Your task to perform on an android device: toggle notifications settings in the gmail app Image 0: 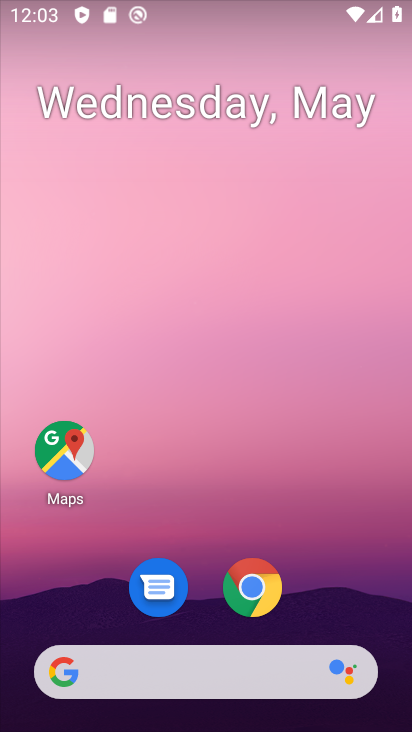
Step 0: drag from (319, 577) to (170, 55)
Your task to perform on an android device: toggle notifications settings in the gmail app Image 1: 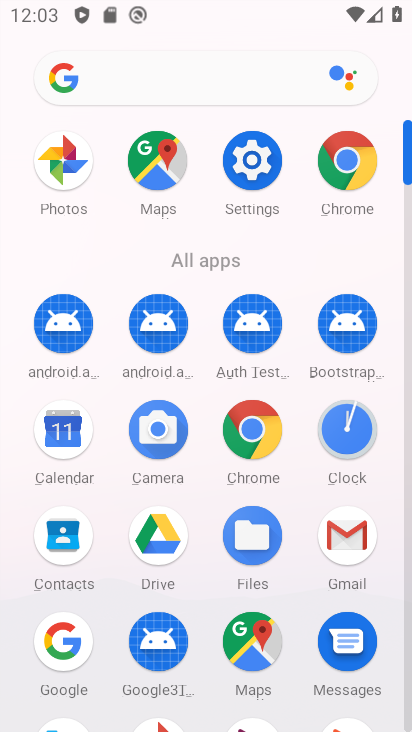
Step 1: click (334, 537)
Your task to perform on an android device: toggle notifications settings in the gmail app Image 2: 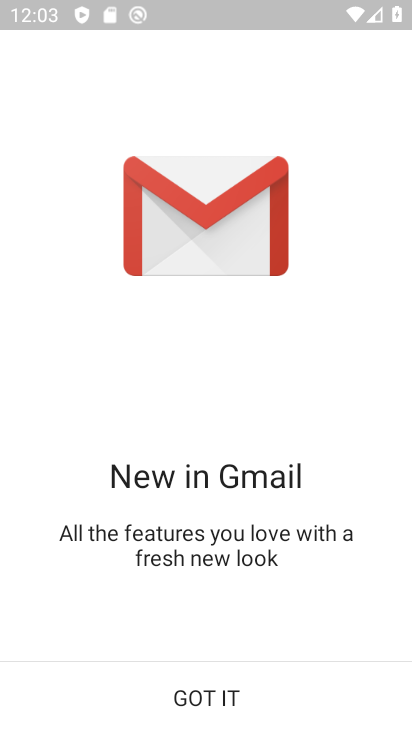
Step 2: click (235, 686)
Your task to perform on an android device: toggle notifications settings in the gmail app Image 3: 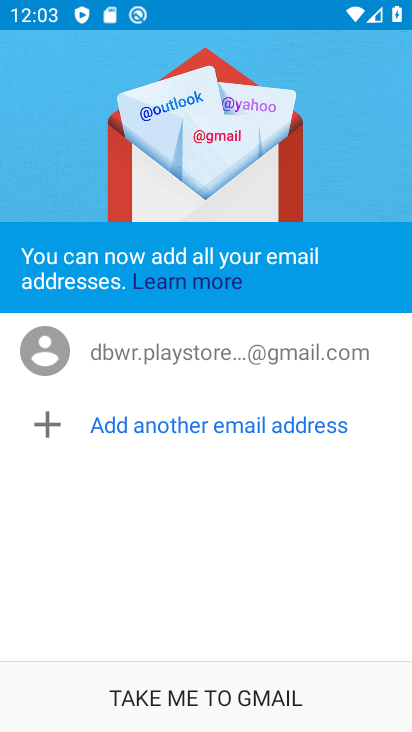
Step 3: click (235, 686)
Your task to perform on an android device: toggle notifications settings in the gmail app Image 4: 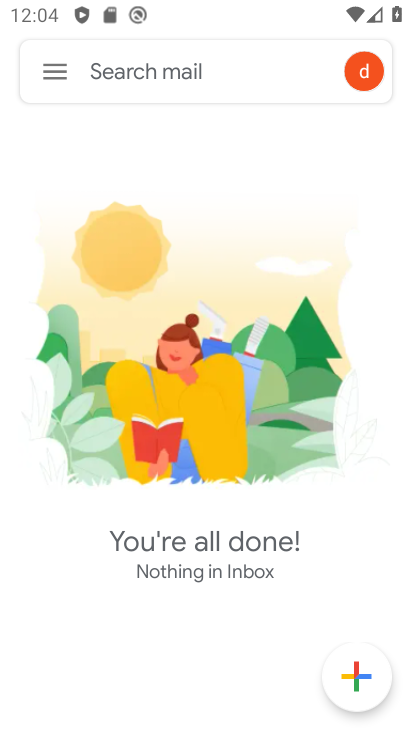
Step 4: click (62, 86)
Your task to perform on an android device: toggle notifications settings in the gmail app Image 5: 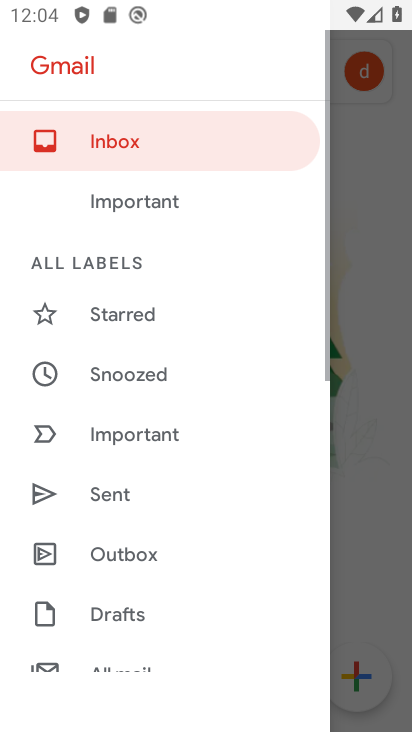
Step 5: drag from (138, 544) to (110, 128)
Your task to perform on an android device: toggle notifications settings in the gmail app Image 6: 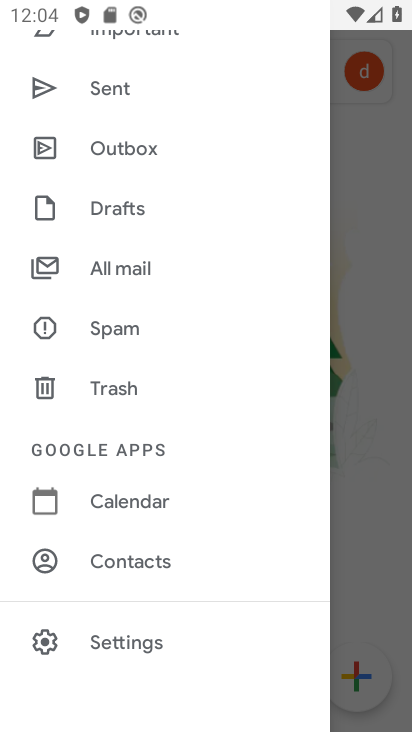
Step 6: click (136, 622)
Your task to perform on an android device: toggle notifications settings in the gmail app Image 7: 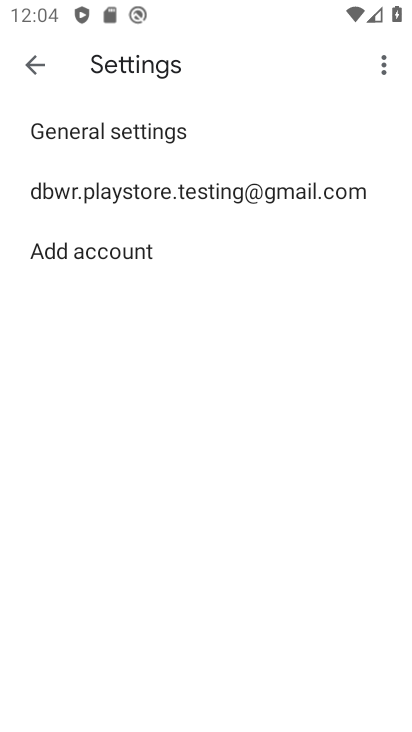
Step 7: click (155, 194)
Your task to perform on an android device: toggle notifications settings in the gmail app Image 8: 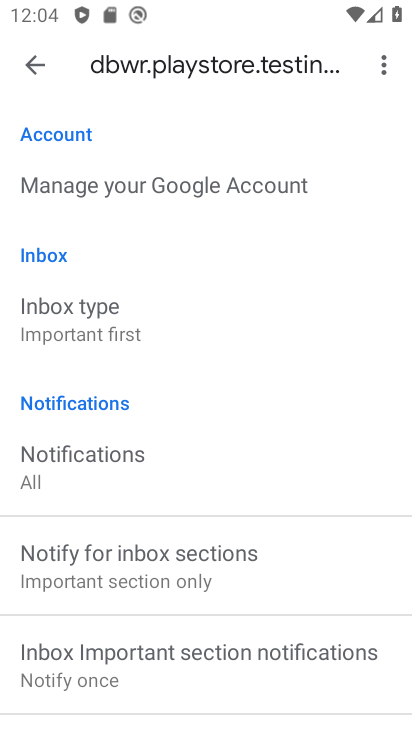
Step 8: drag from (198, 655) to (177, 550)
Your task to perform on an android device: toggle notifications settings in the gmail app Image 9: 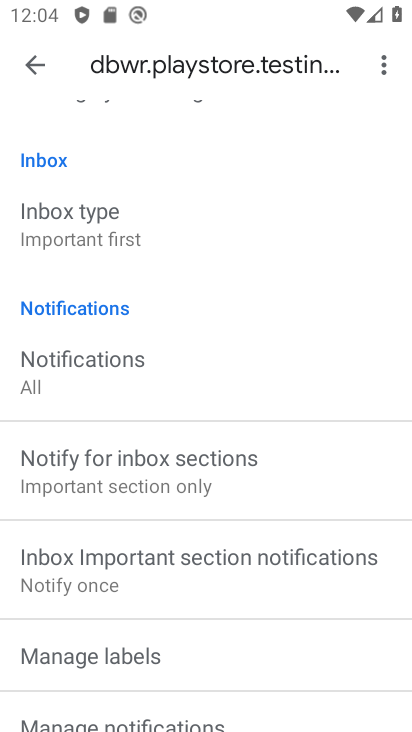
Step 9: click (101, 359)
Your task to perform on an android device: toggle notifications settings in the gmail app Image 10: 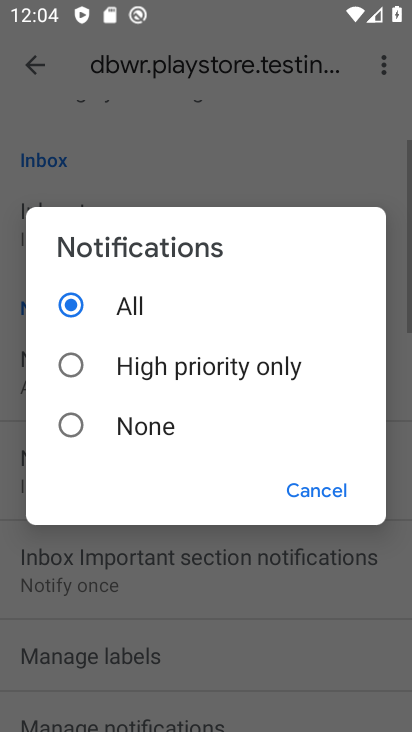
Step 10: click (141, 424)
Your task to perform on an android device: toggle notifications settings in the gmail app Image 11: 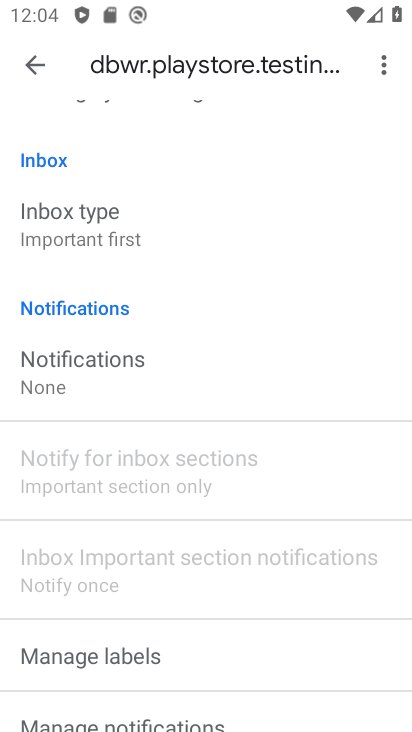
Step 11: click (183, 709)
Your task to perform on an android device: toggle notifications settings in the gmail app Image 12: 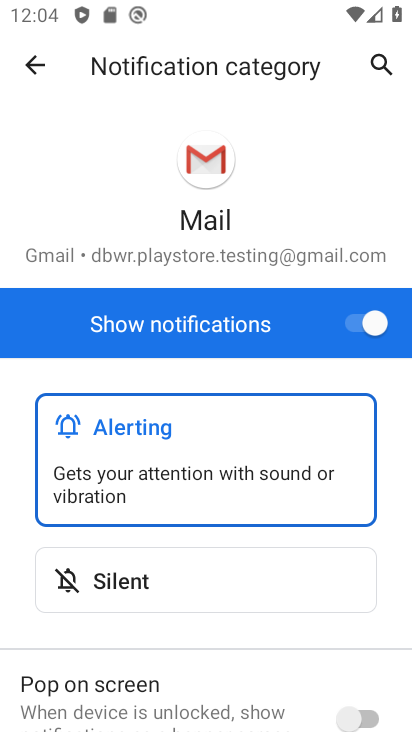
Step 12: click (301, 566)
Your task to perform on an android device: toggle notifications settings in the gmail app Image 13: 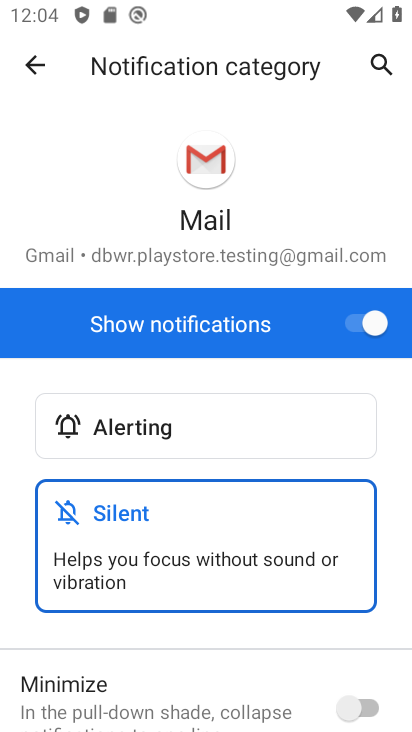
Step 13: task complete